Your task to perform on an android device: Open network settings Image 0: 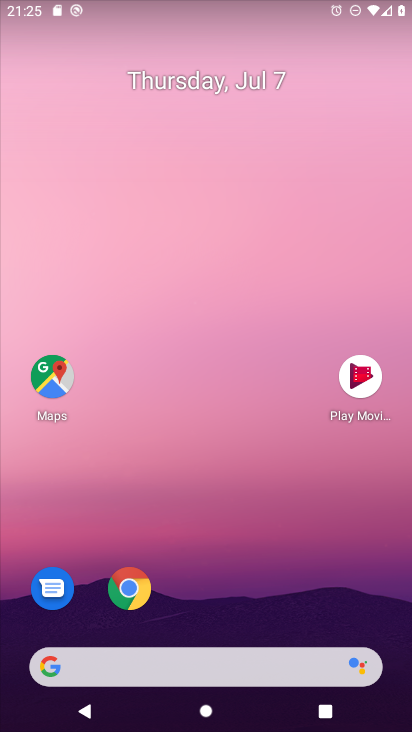
Step 0: drag from (195, 653) to (246, 303)
Your task to perform on an android device: Open network settings Image 1: 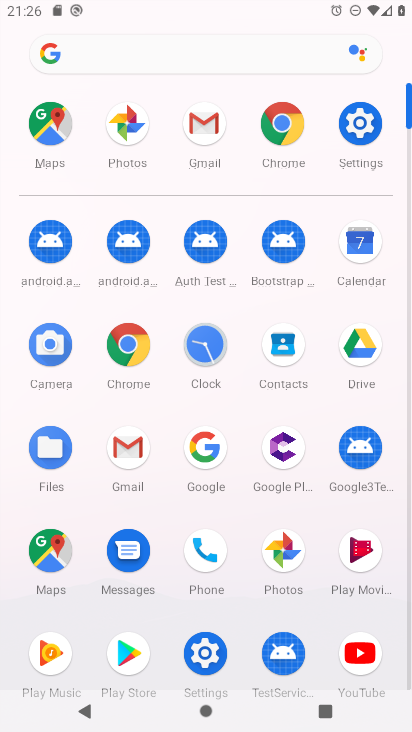
Step 1: click (360, 122)
Your task to perform on an android device: Open network settings Image 2: 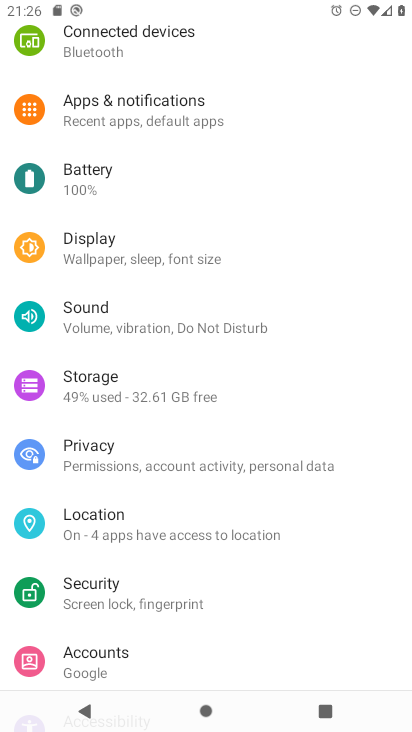
Step 2: drag from (138, 67) to (126, 583)
Your task to perform on an android device: Open network settings Image 3: 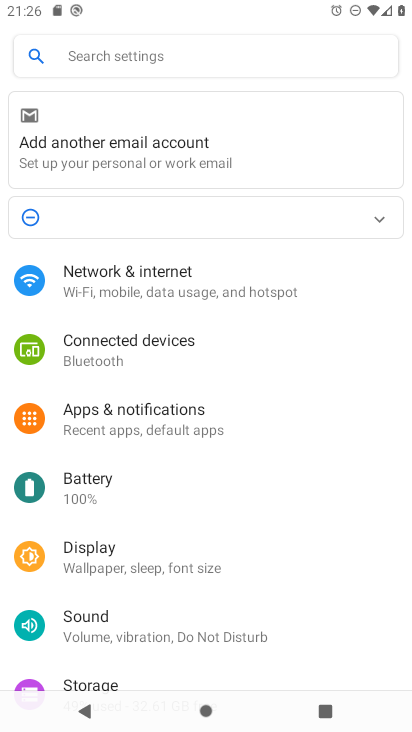
Step 3: click (120, 268)
Your task to perform on an android device: Open network settings Image 4: 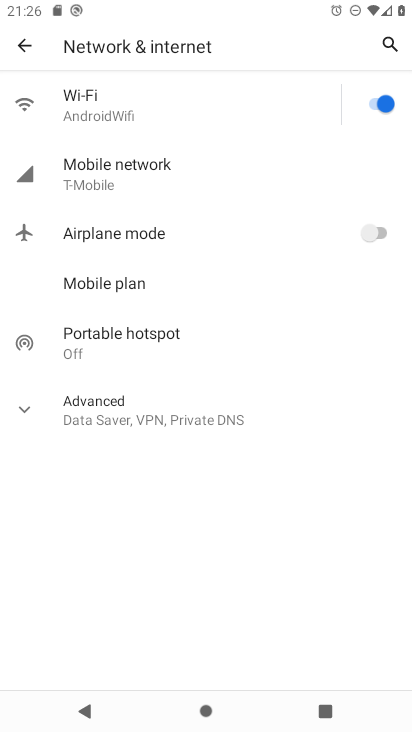
Step 4: task complete